Your task to perform on an android device: Play the last video I watched on Youtube Image 0: 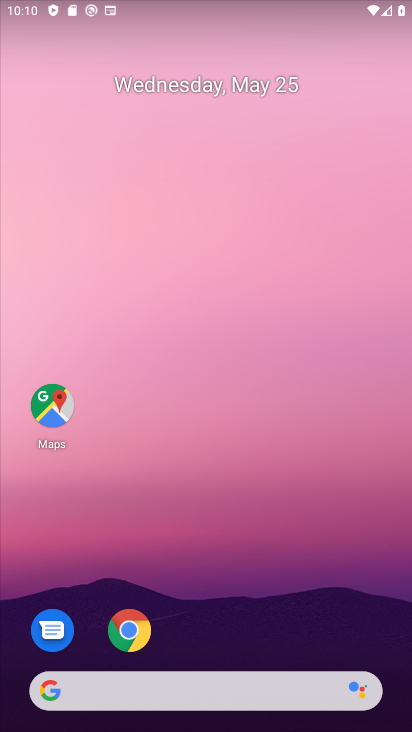
Step 0: drag from (389, 614) to (384, 269)
Your task to perform on an android device: Play the last video I watched on Youtube Image 1: 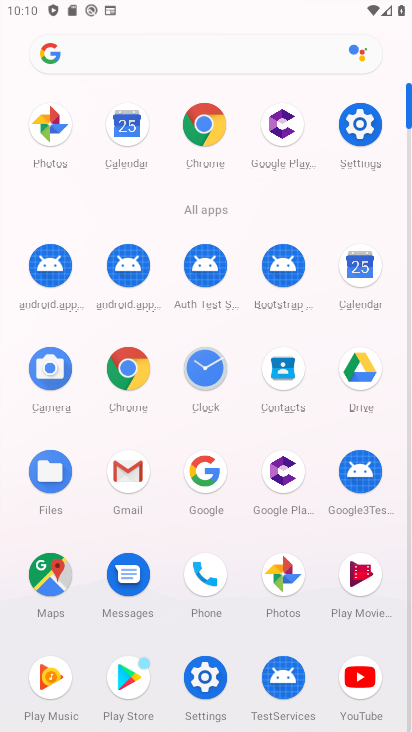
Step 1: click (355, 674)
Your task to perform on an android device: Play the last video I watched on Youtube Image 2: 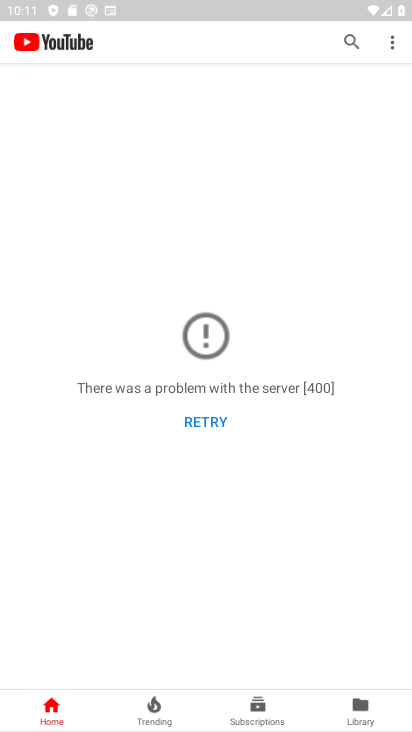
Step 2: task complete